Your task to perform on an android device: Go to CNN.com Image 0: 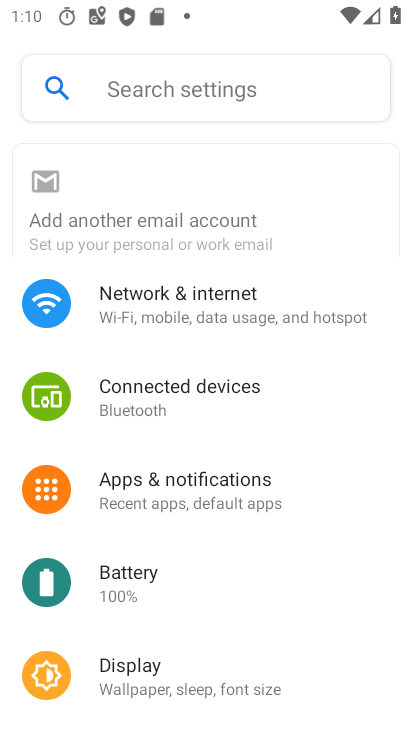
Step 0: drag from (218, 691) to (266, 257)
Your task to perform on an android device: Go to CNN.com Image 1: 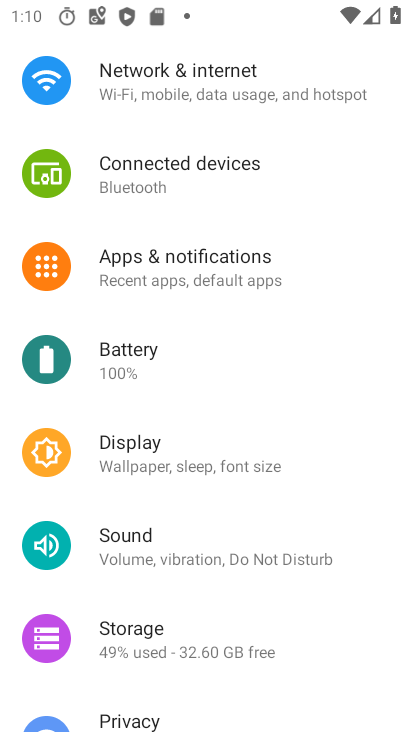
Step 1: press home button
Your task to perform on an android device: Go to CNN.com Image 2: 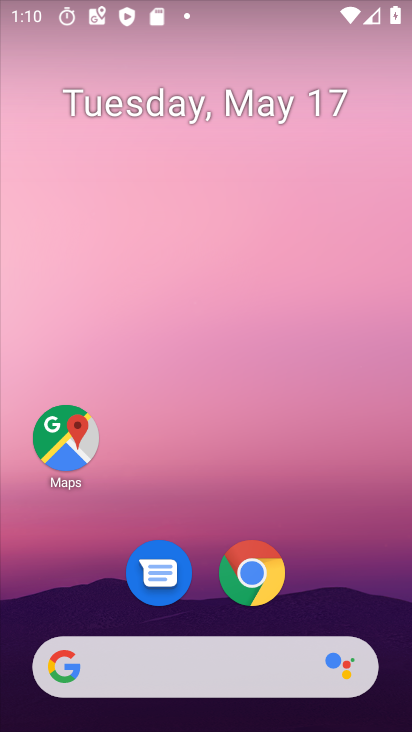
Step 2: click (166, 678)
Your task to perform on an android device: Go to CNN.com Image 3: 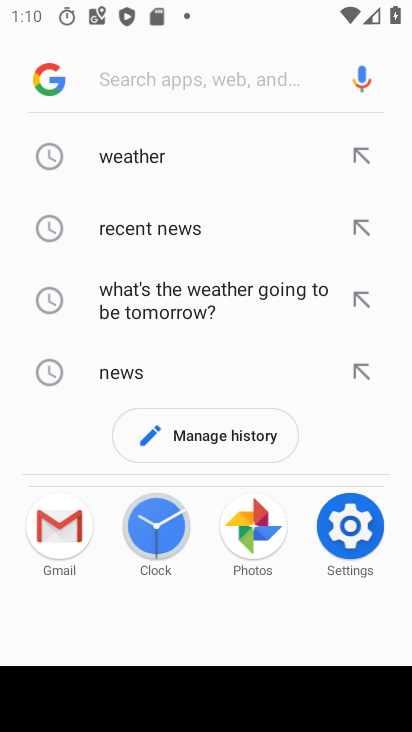
Step 3: type "cnn.com"
Your task to perform on an android device: Go to CNN.com Image 4: 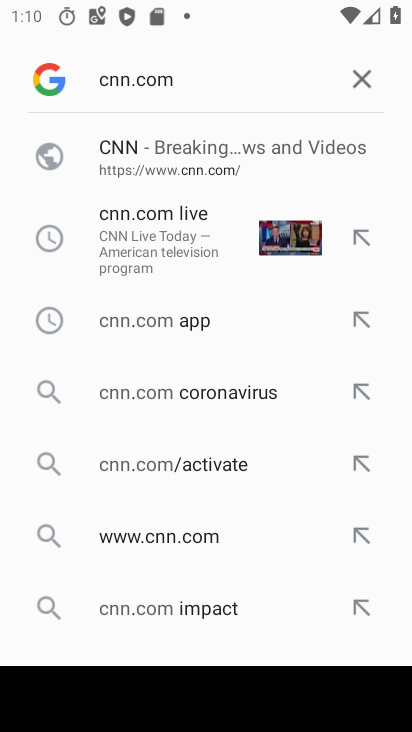
Step 4: click (210, 148)
Your task to perform on an android device: Go to CNN.com Image 5: 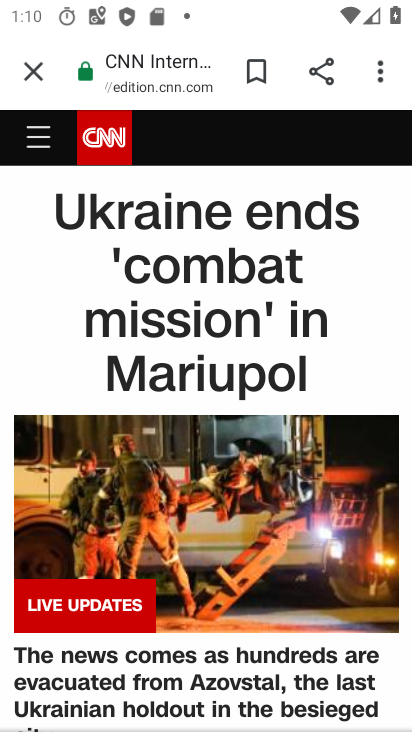
Step 5: task complete